Your task to perform on an android device: show emergency info Image 0: 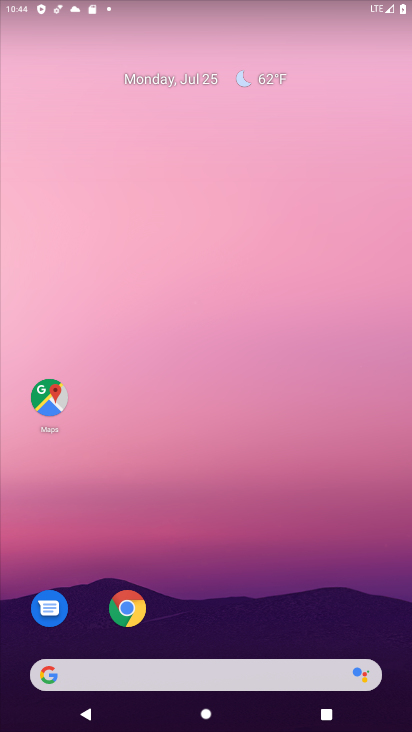
Step 0: drag from (217, 555) to (214, 163)
Your task to perform on an android device: show emergency info Image 1: 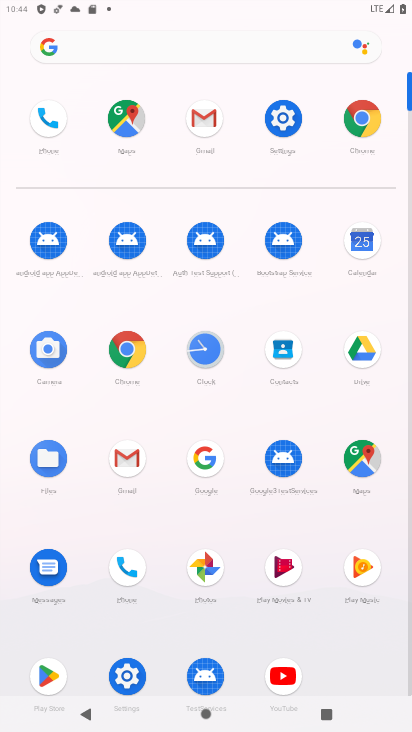
Step 1: click (127, 667)
Your task to perform on an android device: show emergency info Image 2: 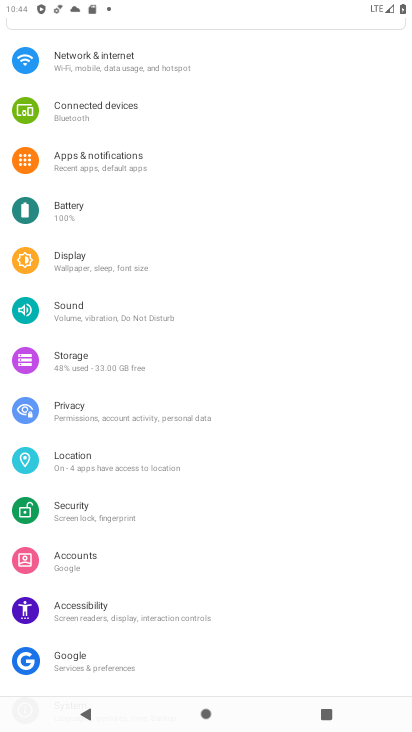
Step 2: drag from (176, 645) to (193, 338)
Your task to perform on an android device: show emergency info Image 3: 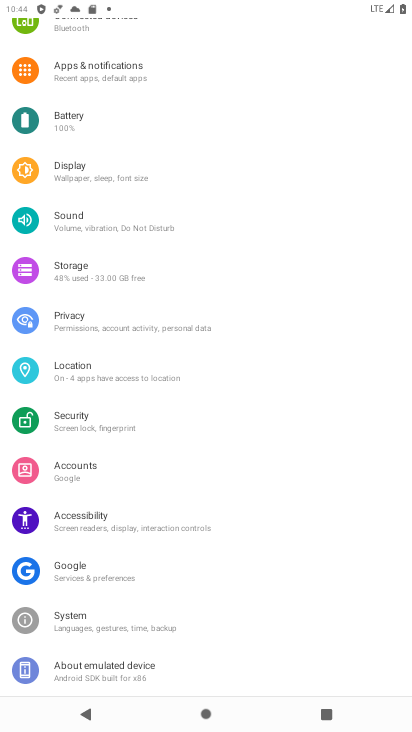
Step 3: click (110, 668)
Your task to perform on an android device: show emergency info Image 4: 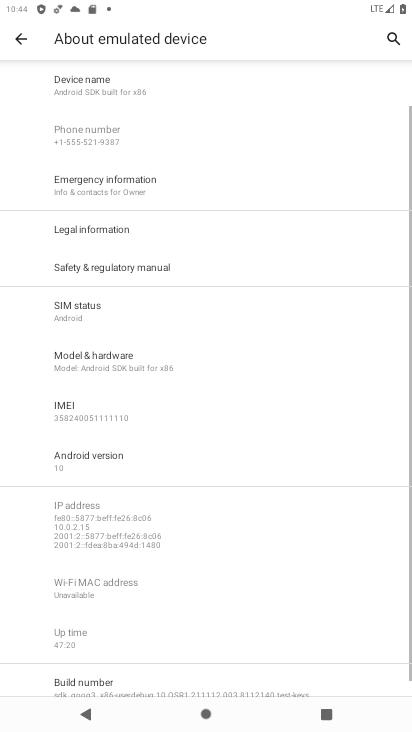
Step 4: click (113, 186)
Your task to perform on an android device: show emergency info Image 5: 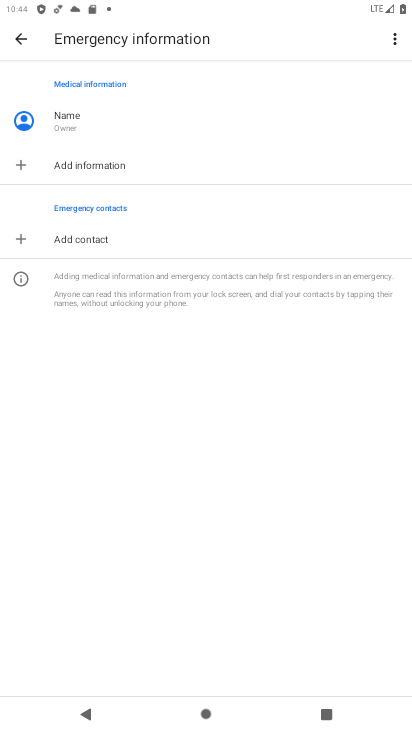
Step 5: task complete